Your task to perform on an android device: Search for pizza restaurants on Maps Image 0: 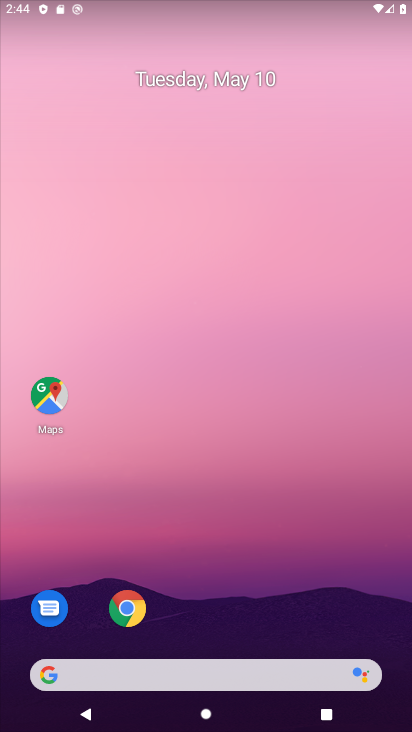
Step 0: click (51, 399)
Your task to perform on an android device: Search for pizza restaurants on Maps Image 1: 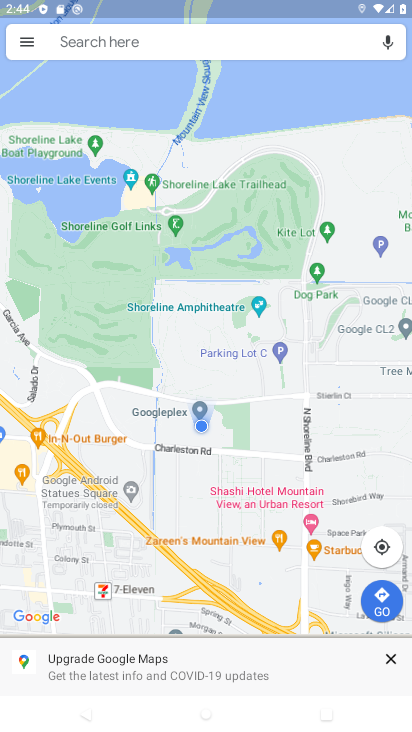
Step 1: click (117, 41)
Your task to perform on an android device: Search for pizza restaurants on Maps Image 2: 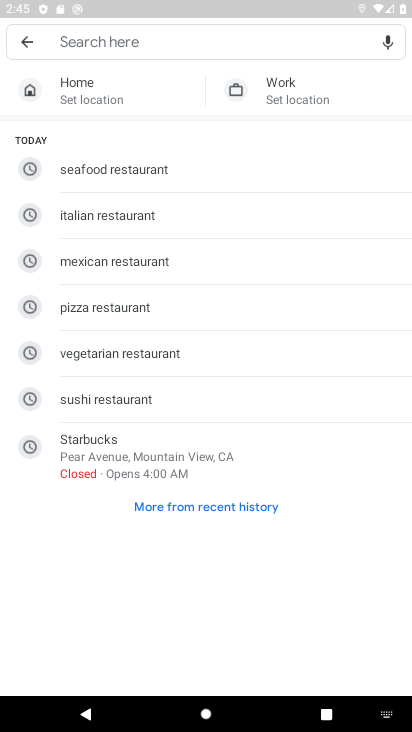
Step 2: type "pizza restaurants"
Your task to perform on an android device: Search for pizza restaurants on Maps Image 3: 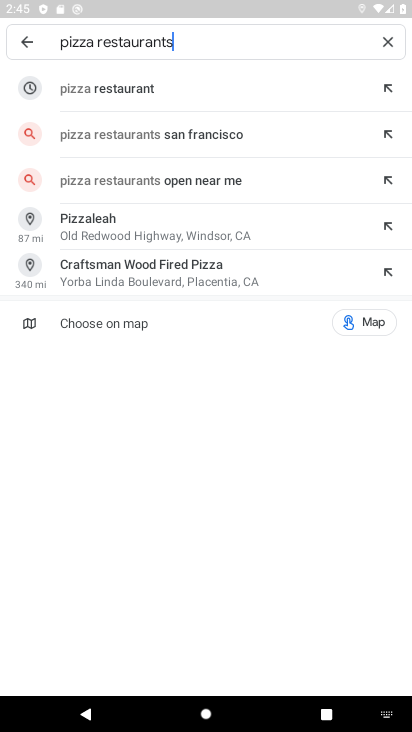
Step 3: click (64, 82)
Your task to perform on an android device: Search for pizza restaurants on Maps Image 4: 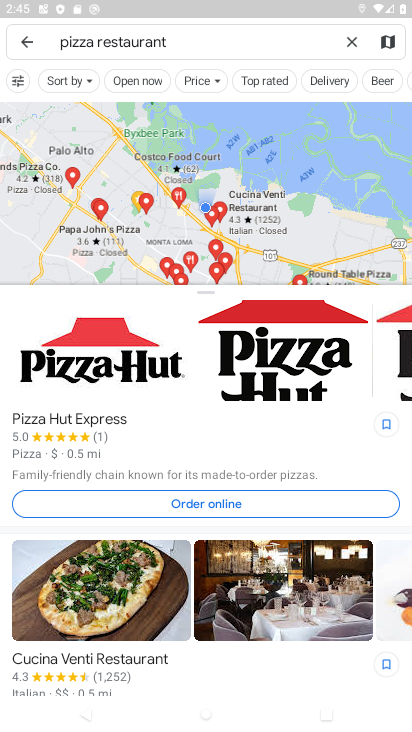
Step 4: task complete